Your task to perform on an android device: Go to Maps Image 0: 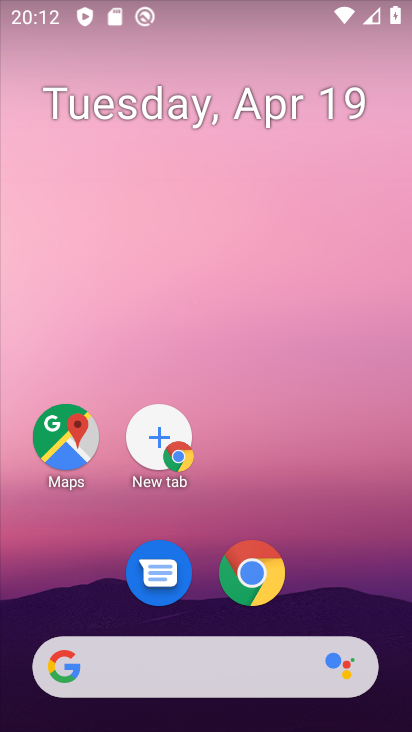
Step 0: click (70, 434)
Your task to perform on an android device: Go to Maps Image 1: 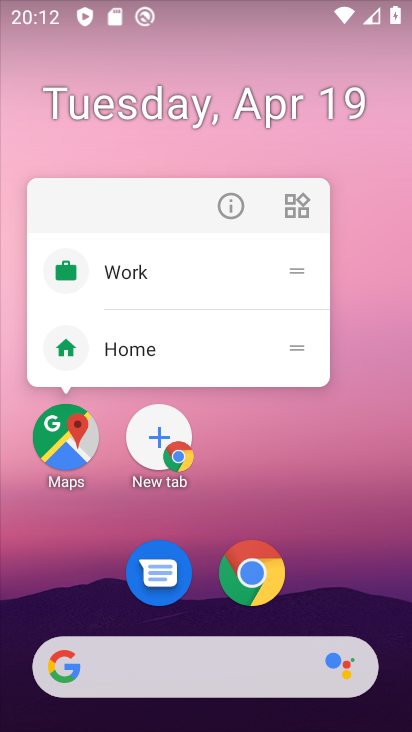
Step 1: click (70, 434)
Your task to perform on an android device: Go to Maps Image 2: 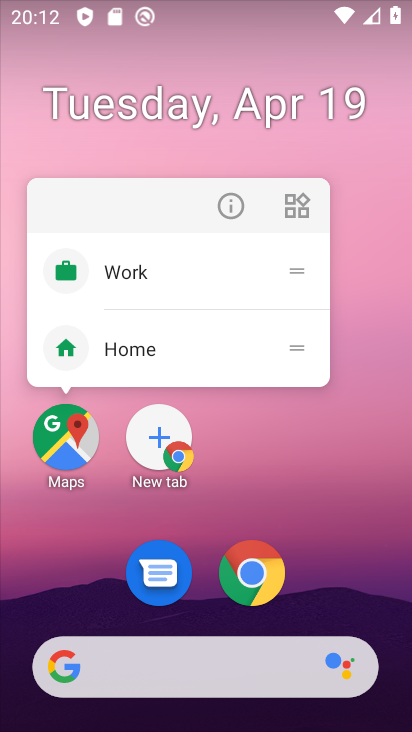
Step 2: click (70, 434)
Your task to perform on an android device: Go to Maps Image 3: 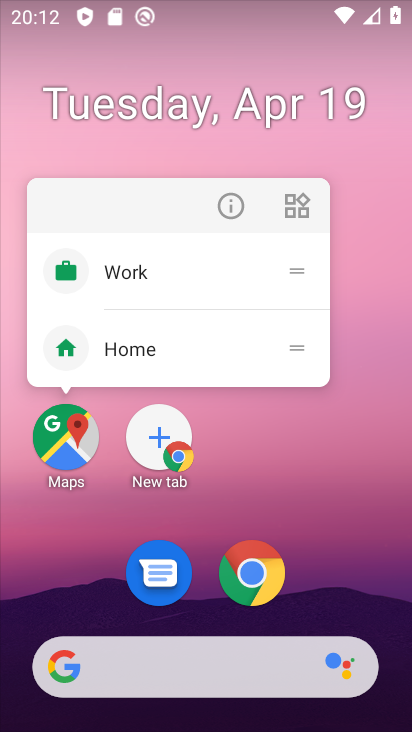
Step 3: click (70, 434)
Your task to perform on an android device: Go to Maps Image 4: 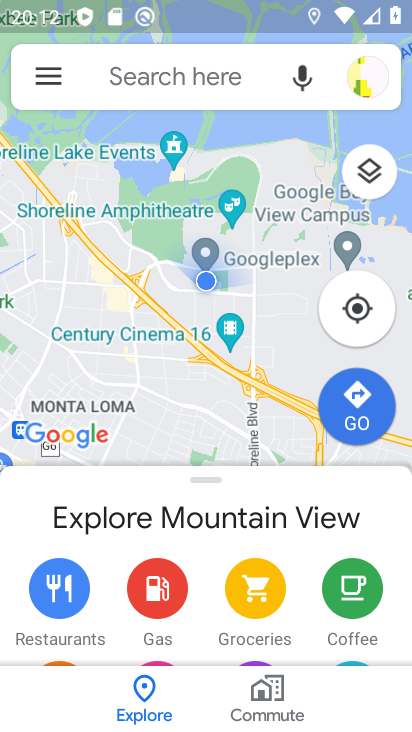
Step 4: task complete